Your task to perform on an android device: change timer sound Image 0: 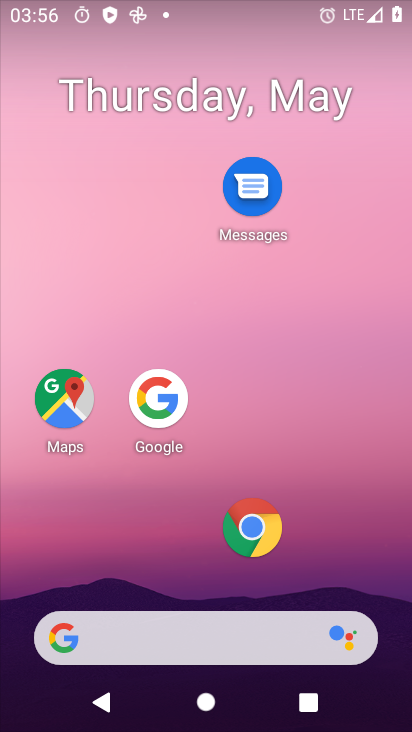
Step 0: drag from (209, 589) to (216, 160)
Your task to perform on an android device: change timer sound Image 1: 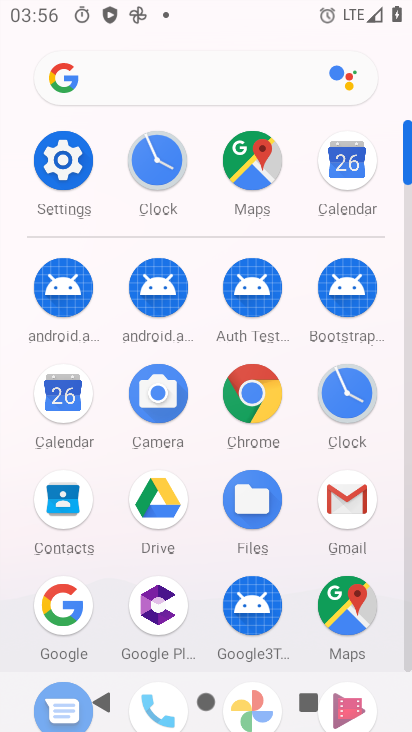
Step 1: click (350, 378)
Your task to perform on an android device: change timer sound Image 2: 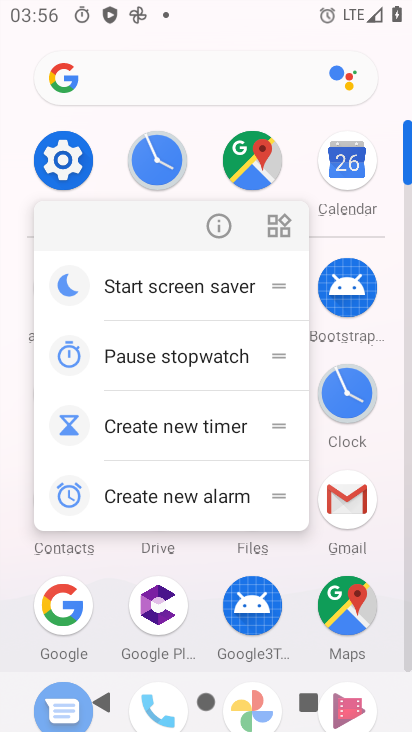
Step 2: click (182, 216)
Your task to perform on an android device: change timer sound Image 3: 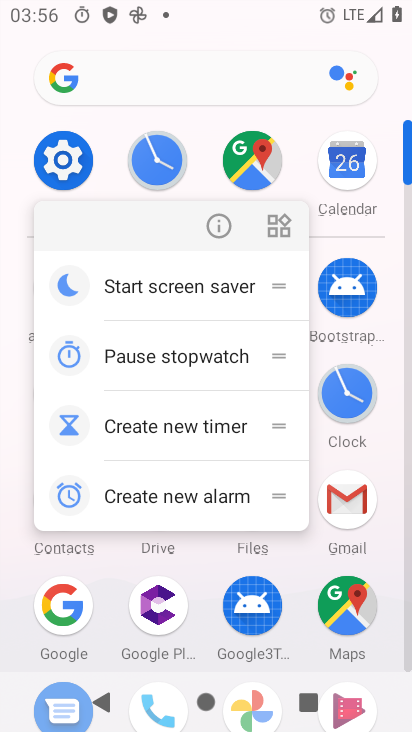
Step 3: click (202, 219)
Your task to perform on an android device: change timer sound Image 4: 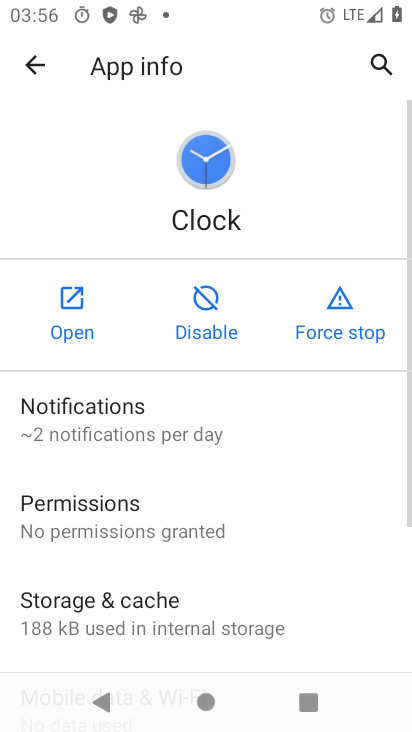
Step 4: click (101, 310)
Your task to perform on an android device: change timer sound Image 5: 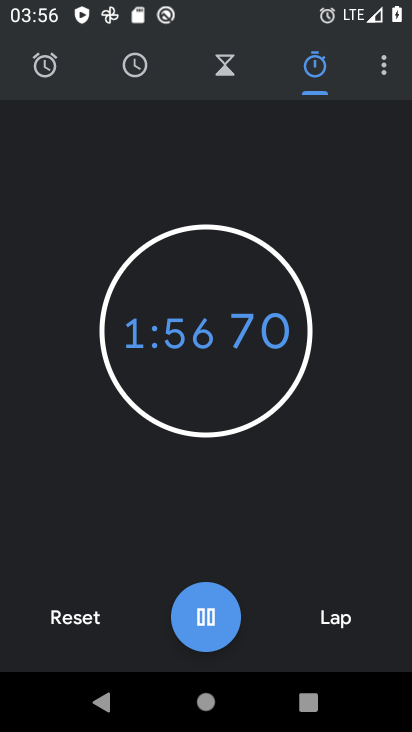
Step 5: click (394, 76)
Your task to perform on an android device: change timer sound Image 6: 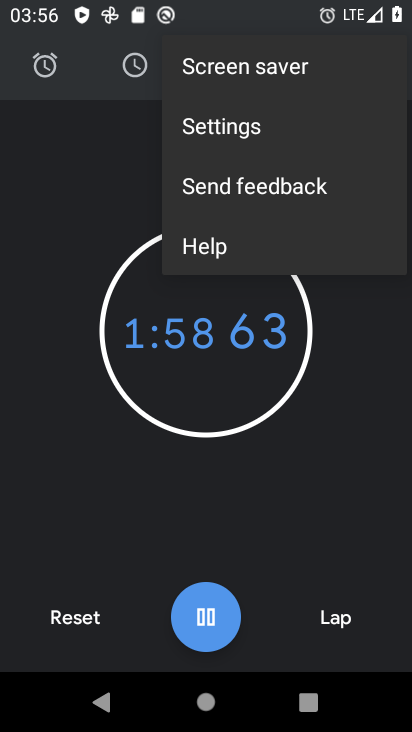
Step 6: click (240, 123)
Your task to perform on an android device: change timer sound Image 7: 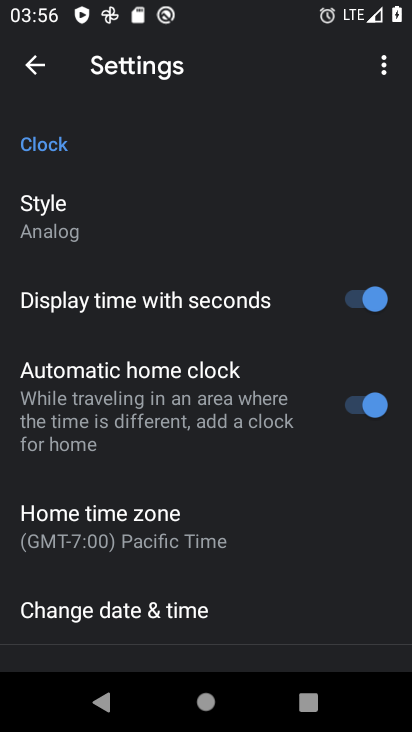
Step 7: drag from (204, 600) to (266, 236)
Your task to perform on an android device: change timer sound Image 8: 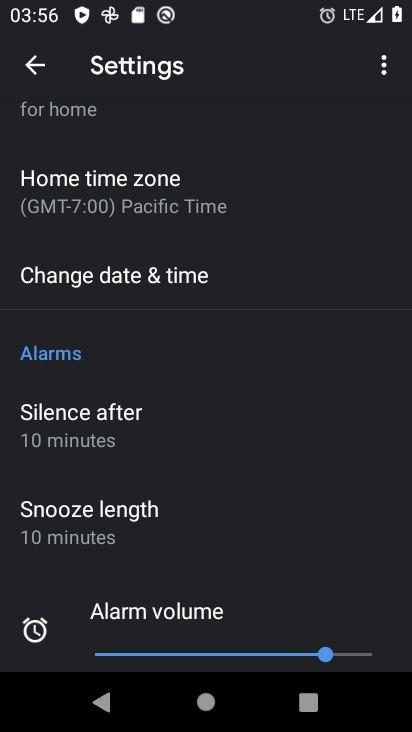
Step 8: drag from (176, 543) to (276, 163)
Your task to perform on an android device: change timer sound Image 9: 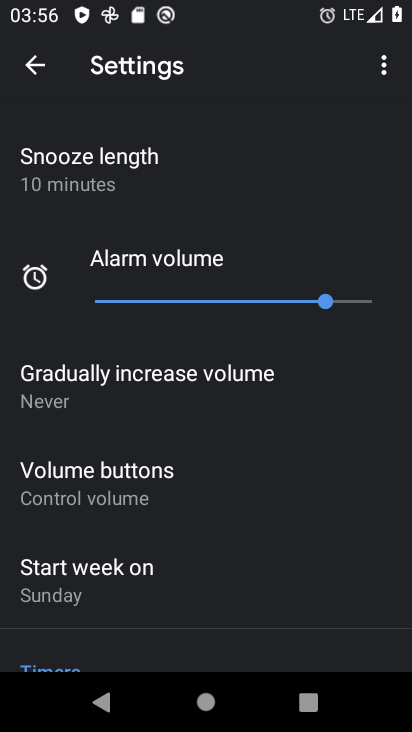
Step 9: drag from (234, 331) to (267, 101)
Your task to perform on an android device: change timer sound Image 10: 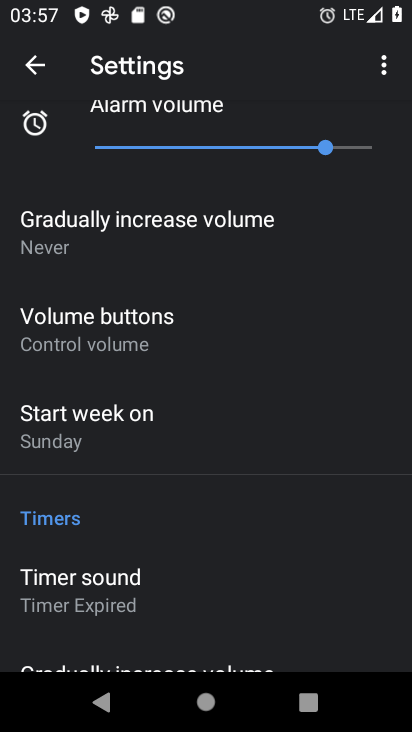
Step 10: click (109, 579)
Your task to perform on an android device: change timer sound Image 11: 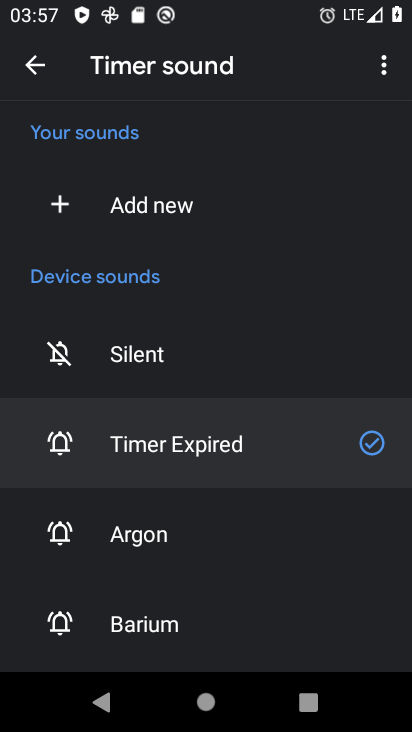
Step 11: click (214, 550)
Your task to perform on an android device: change timer sound Image 12: 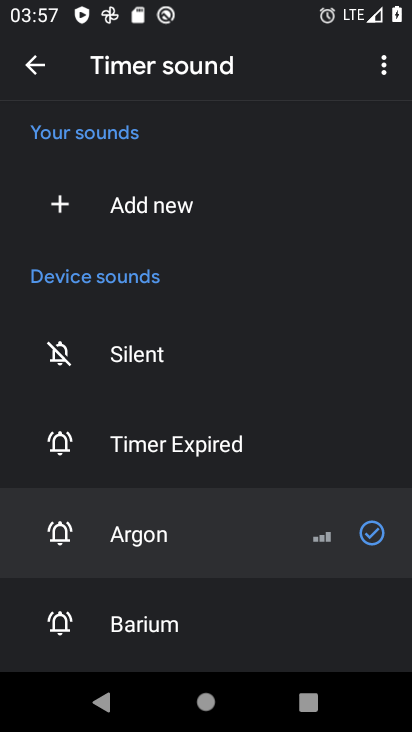
Step 12: task complete